Your task to perform on an android device: open wifi settings Image 0: 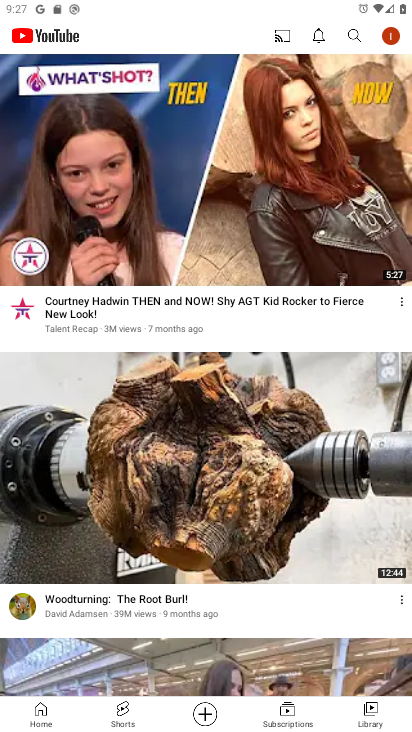
Step 0: drag from (314, 11) to (73, 705)
Your task to perform on an android device: open wifi settings Image 1: 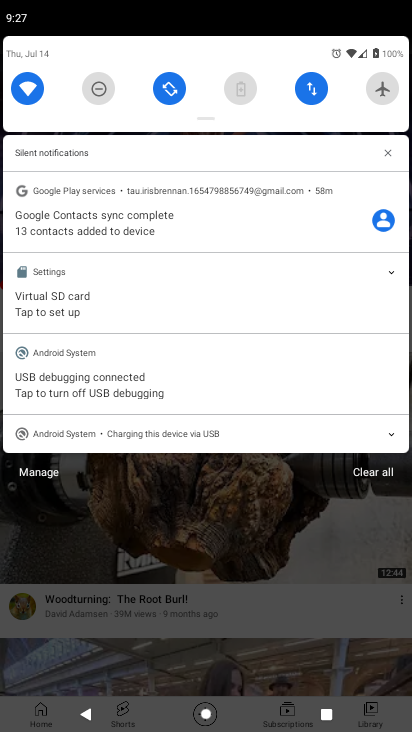
Step 1: click (24, 96)
Your task to perform on an android device: open wifi settings Image 2: 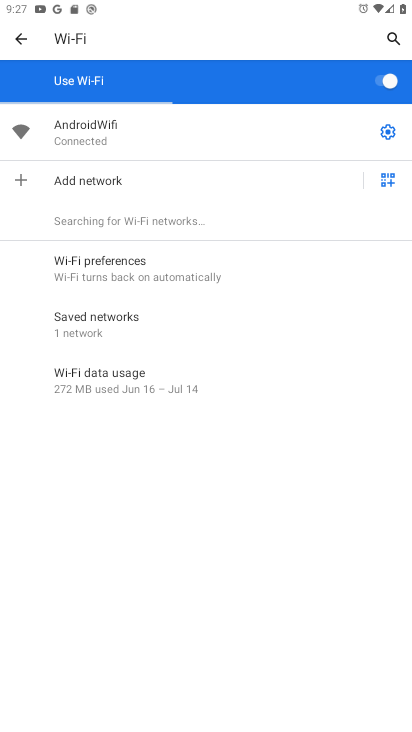
Step 2: task complete